Your task to perform on an android device: Open the web browser Image 0: 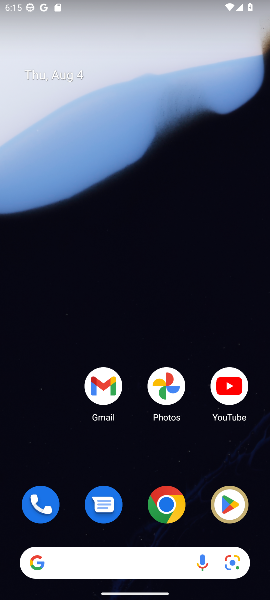
Step 0: click (164, 498)
Your task to perform on an android device: Open the web browser Image 1: 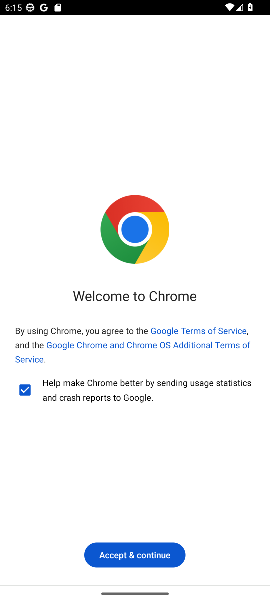
Step 1: task complete